Your task to perform on an android device: Open calendar and show me the third week of next month Image 0: 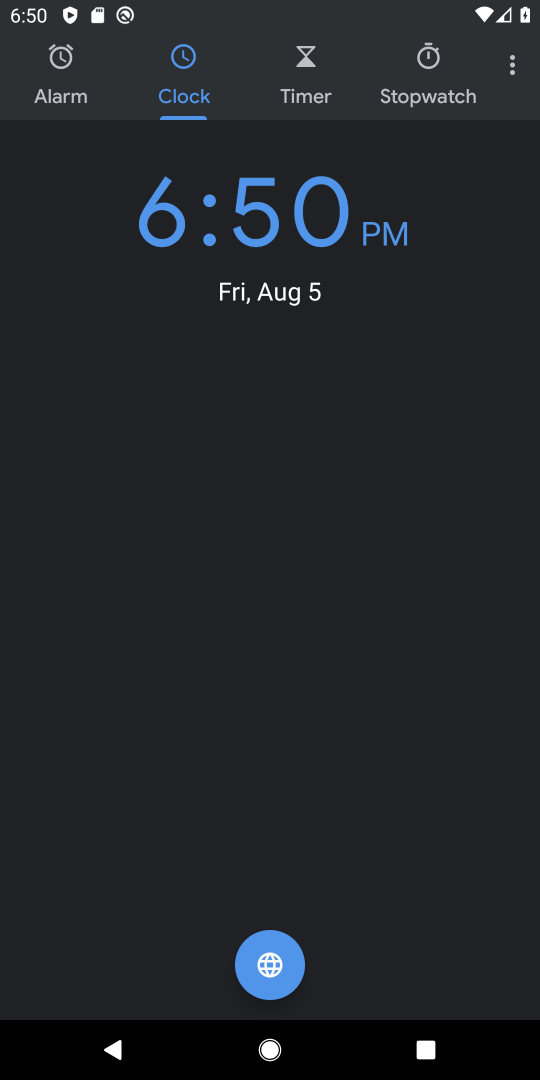
Step 0: press home button
Your task to perform on an android device: Open calendar and show me the third week of next month Image 1: 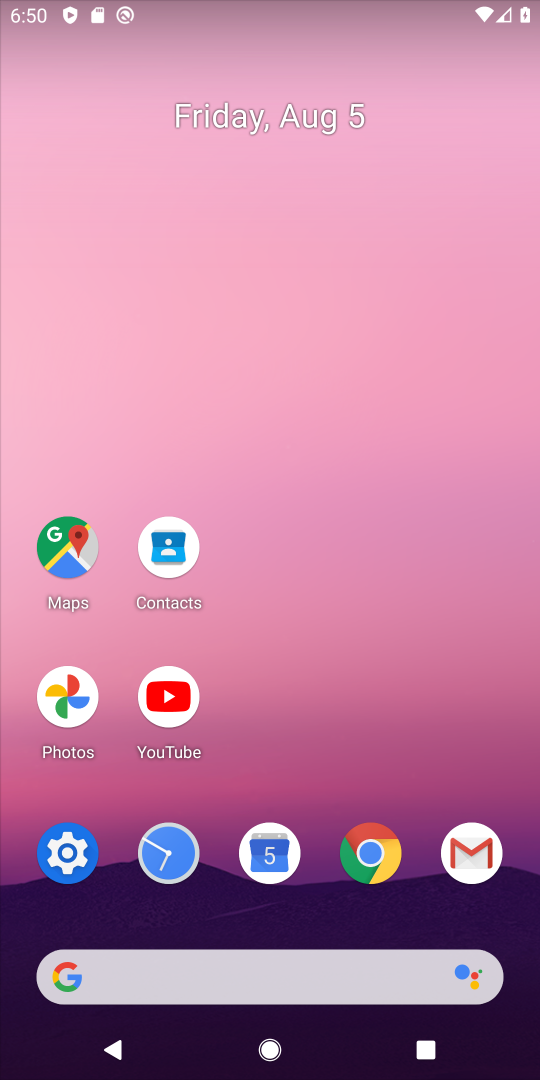
Step 1: click (270, 858)
Your task to perform on an android device: Open calendar and show me the third week of next month Image 2: 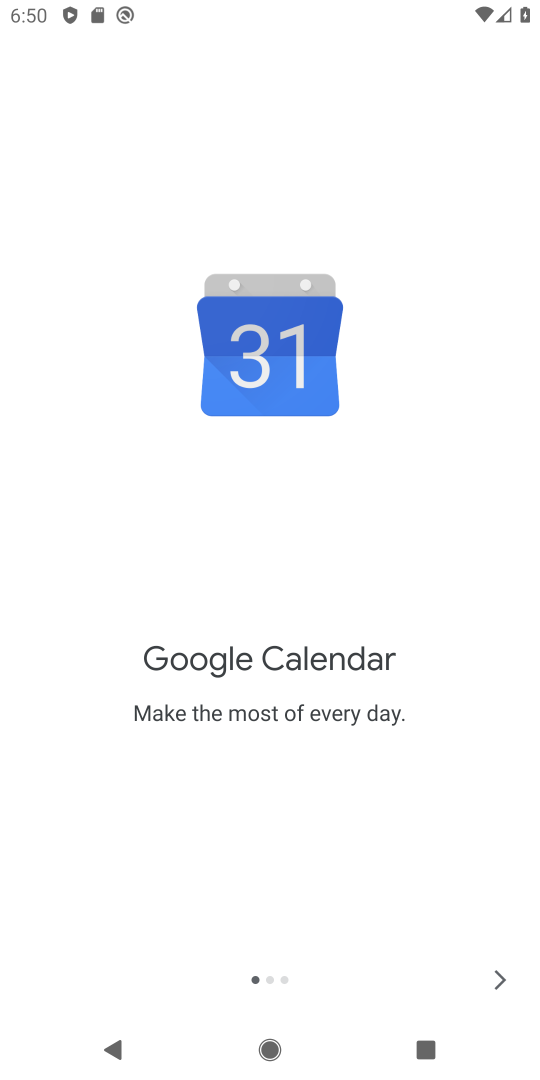
Step 2: click (494, 978)
Your task to perform on an android device: Open calendar and show me the third week of next month Image 3: 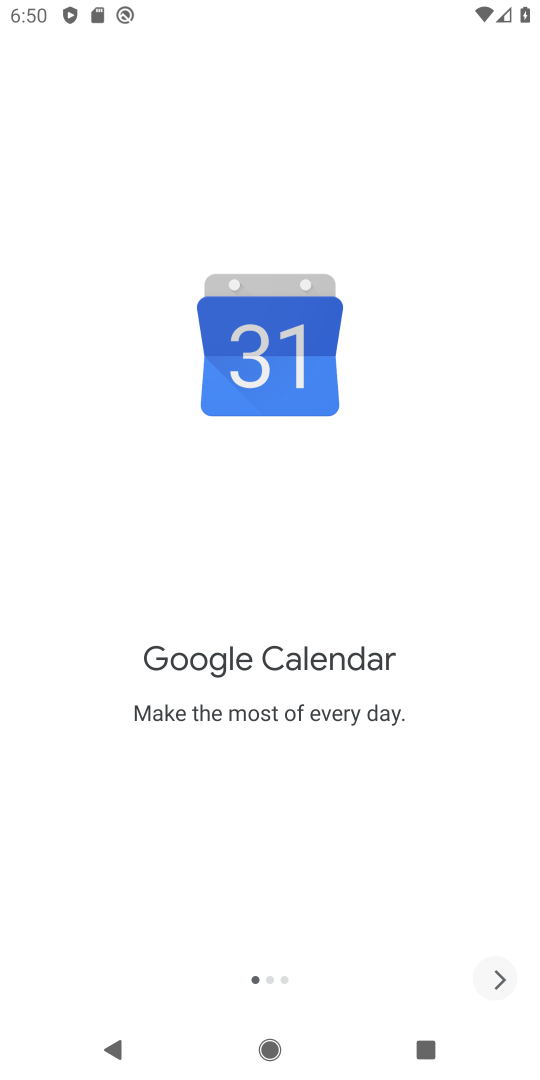
Step 3: click (494, 978)
Your task to perform on an android device: Open calendar and show me the third week of next month Image 4: 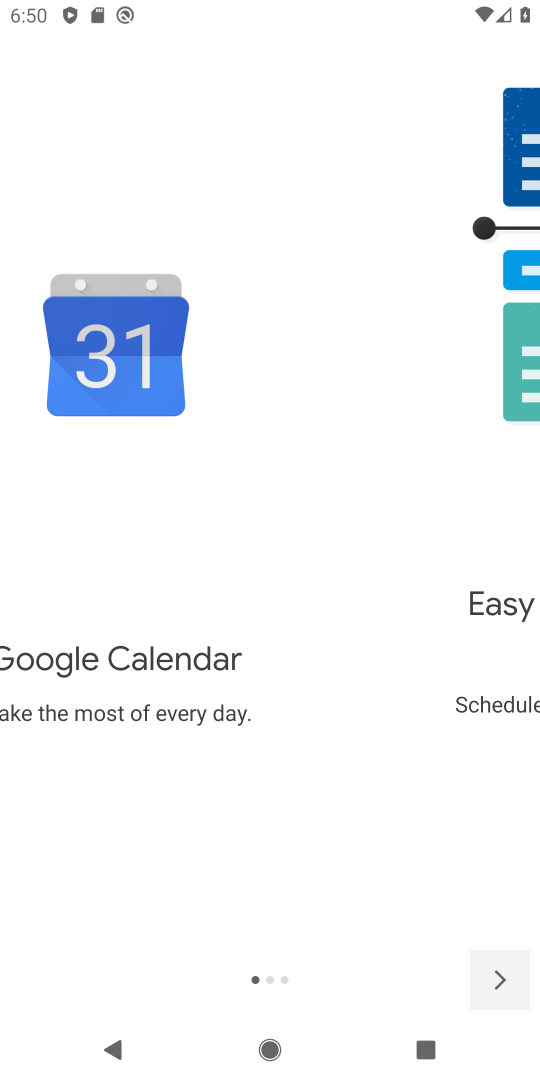
Step 4: click (494, 978)
Your task to perform on an android device: Open calendar and show me the third week of next month Image 5: 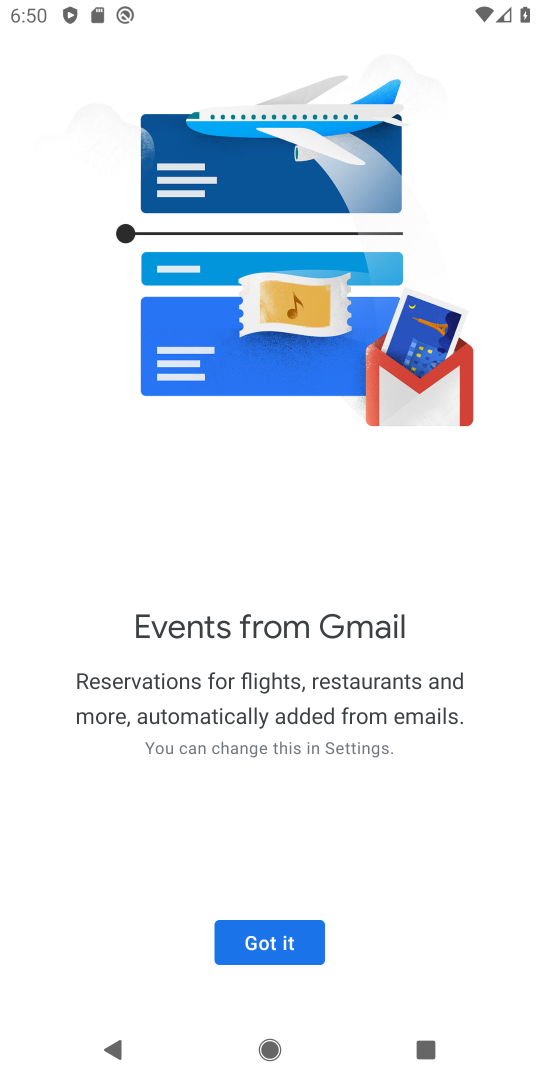
Step 5: click (270, 928)
Your task to perform on an android device: Open calendar and show me the third week of next month Image 6: 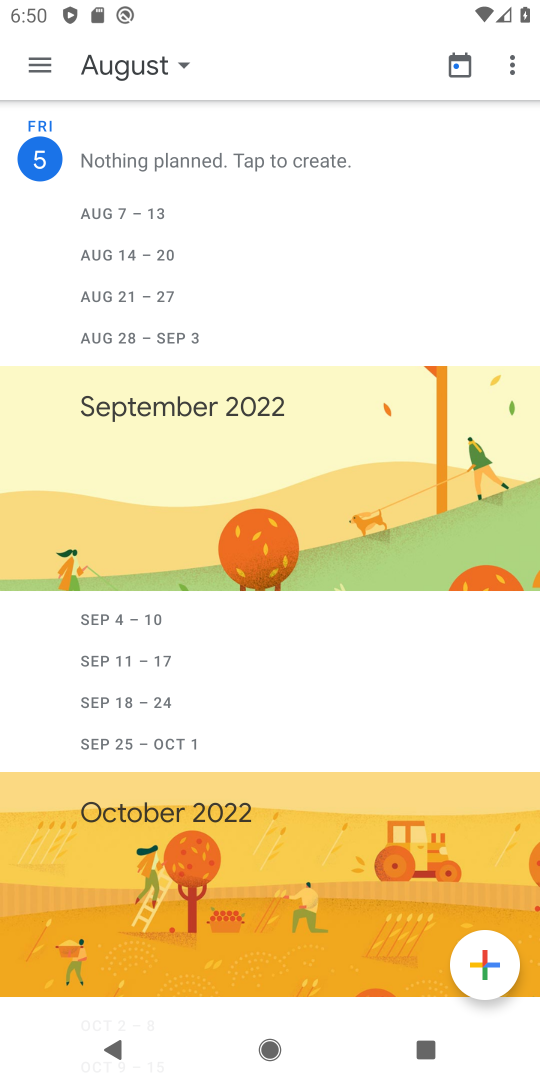
Step 6: click (44, 57)
Your task to perform on an android device: Open calendar and show me the third week of next month Image 7: 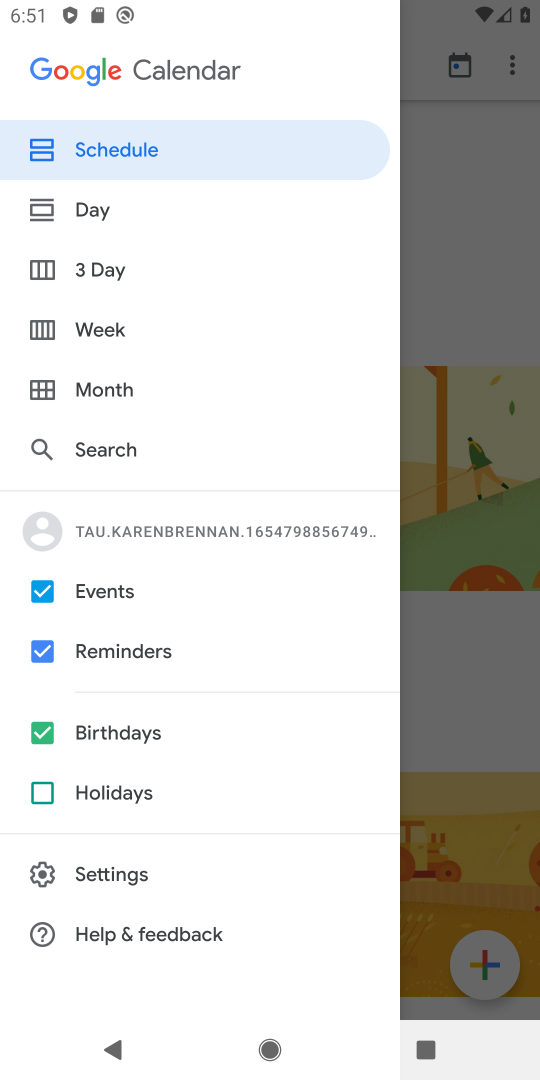
Step 7: click (95, 322)
Your task to perform on an android device: Open calendar and show me the third week of next month Image 8: 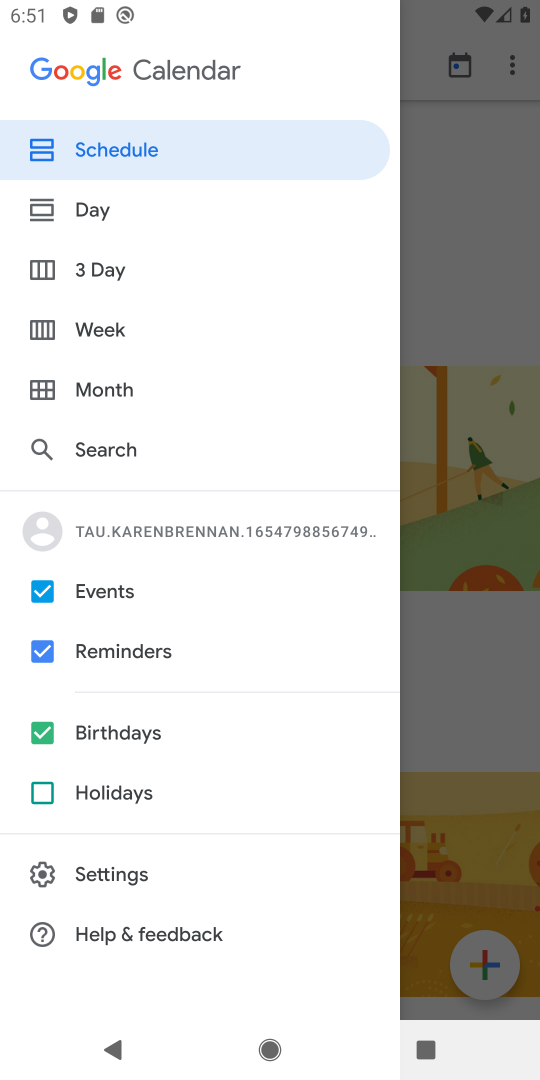
Step 8: click (105, 329)
Your task to perform on an android device: Open calendar and show me the third week of next month Image 9: 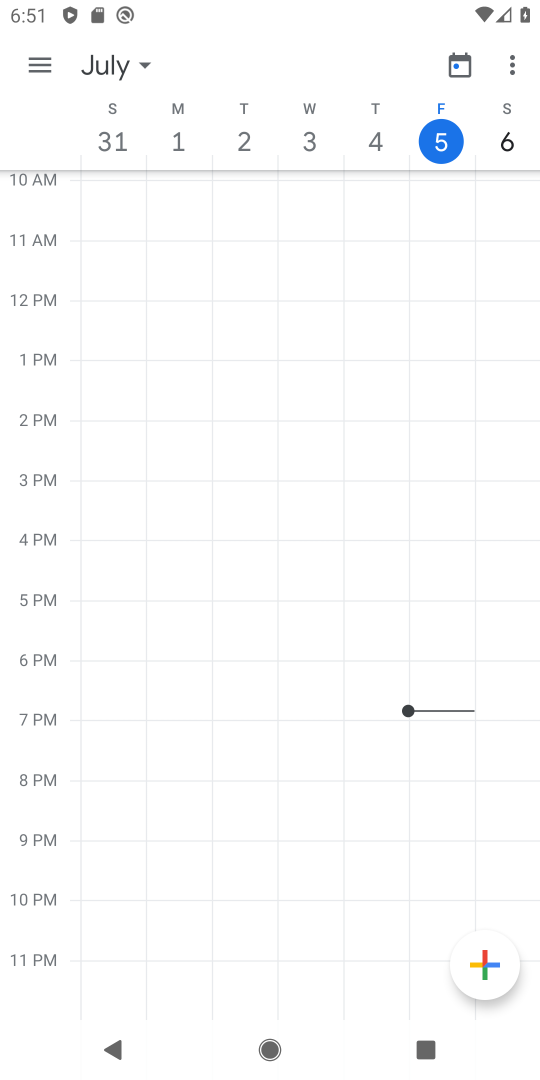
Step 9: click (150, 60)
Your task to perform on an android device: Open calendar and show me the third week of next month Image 10: 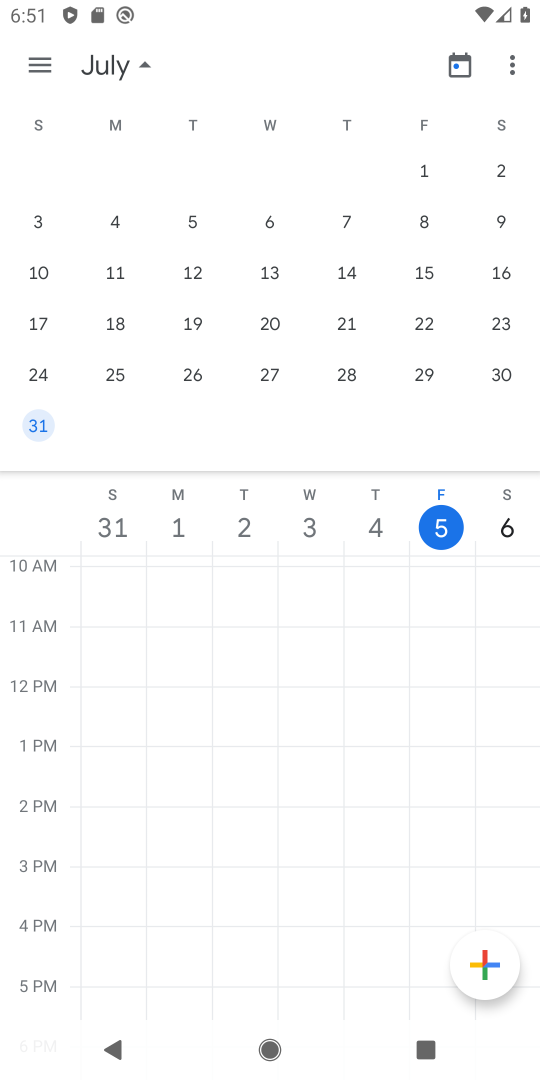
Step 10: drag from (506, 280) to (37, 212)
Your task to perform on an android device: Open calendar and show me the third week of next month Image 11: 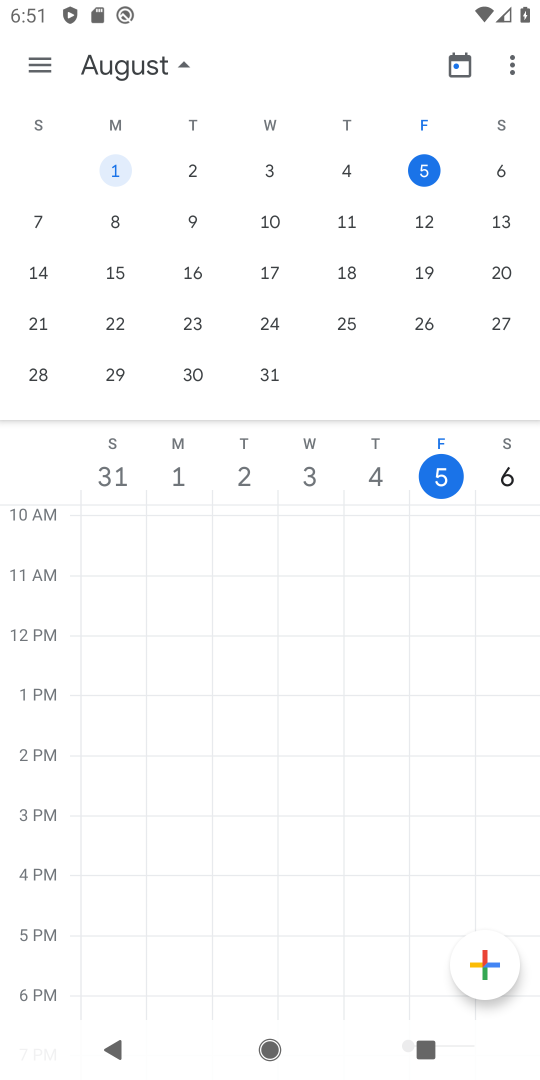
Step 11: drag from (487, 278) to (4, 204)
Your task to perform on an android device: Open calendar and show me the third week of next month Image 12: 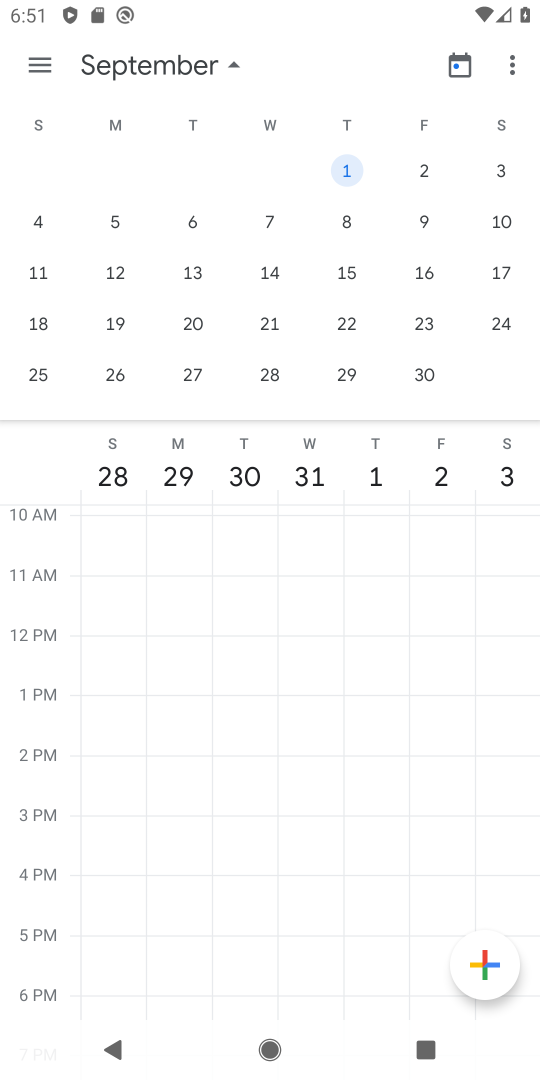
Step 12: click (272, 276)
Your task to perform on an android device: Open calendar and show me the third week of next month Image 13: 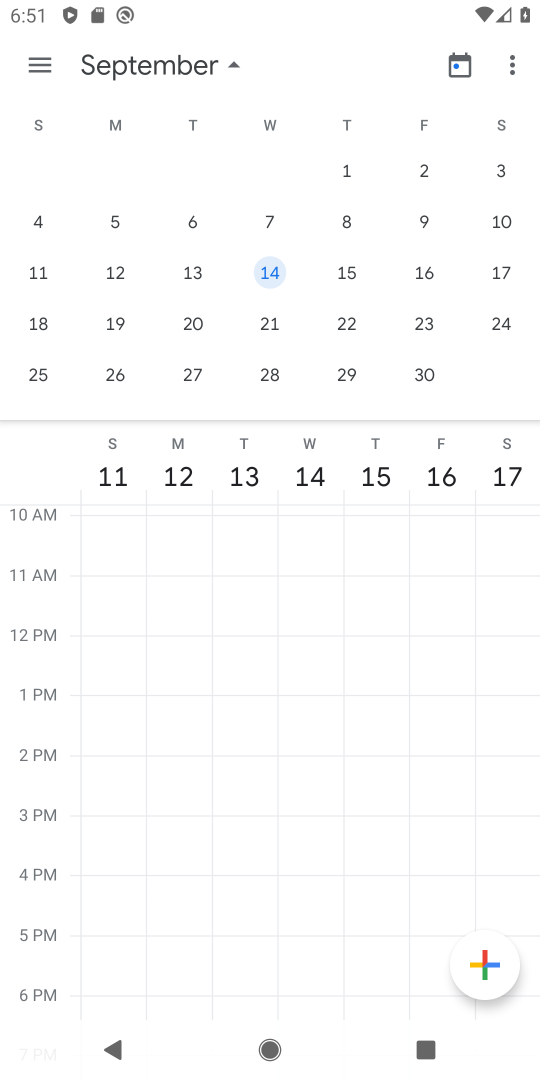
Step 13: task complete